Your task to perform on an android device: Go to Google maps Image 0: 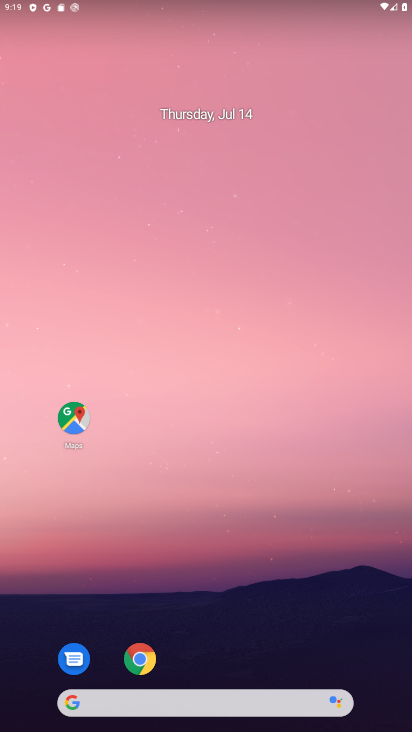
Step 0: click (68, 420)
Your task to perform on an android device: Go to Google maps Image 1: 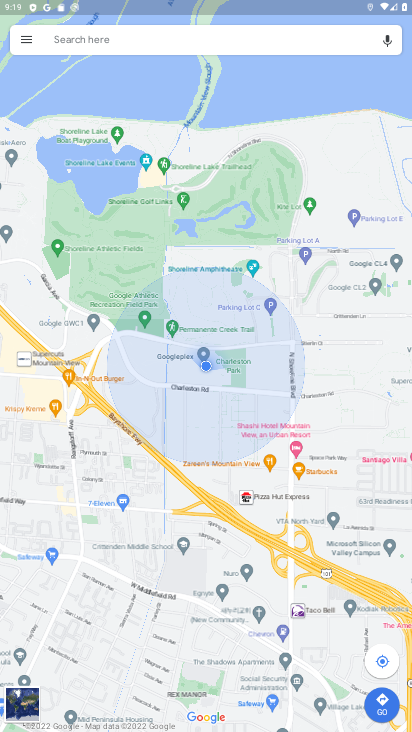
Step 1: task complete